Your task to perform on an android device: Open calendar and show me the third week of next month Image 0: 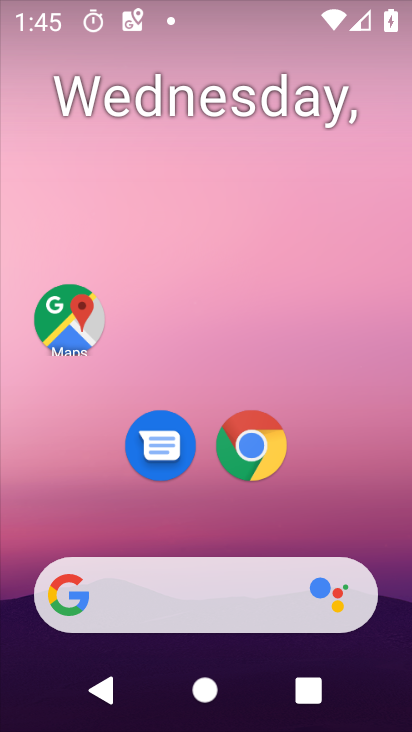
Step 0: press home button
Your task to perform on an android device: Open calendar and show me the third week of next month Image 1: 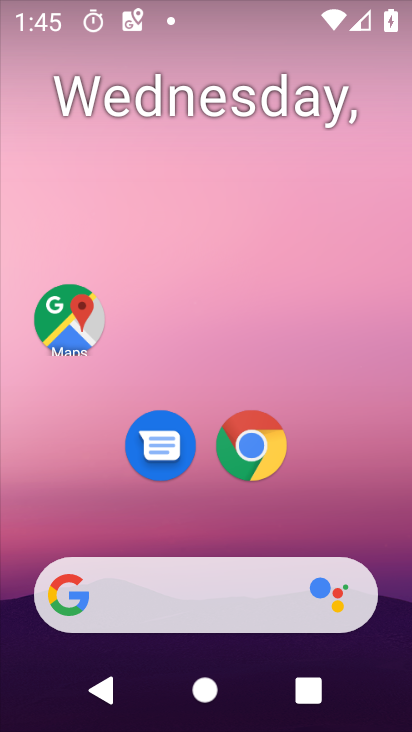
Step 1: drag from (381, 503) to (299, 65)
Your task to perform on an android device: Open calendar and show me the third week of next month Image 2: 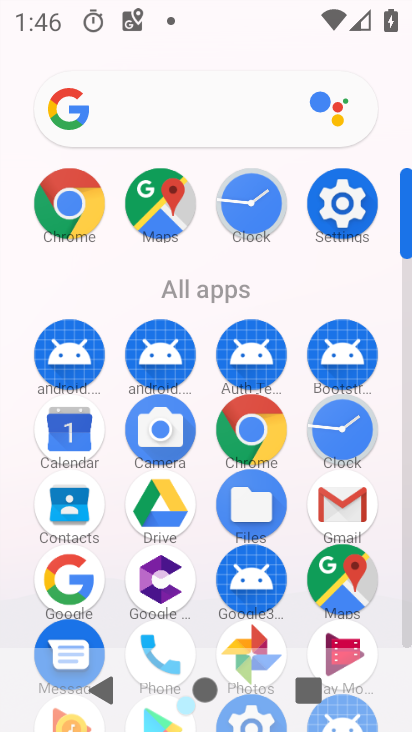
Step 2: click (67, 457)
Your task to perform on an android device: Open calendar and show me the third week of next month Image 3: 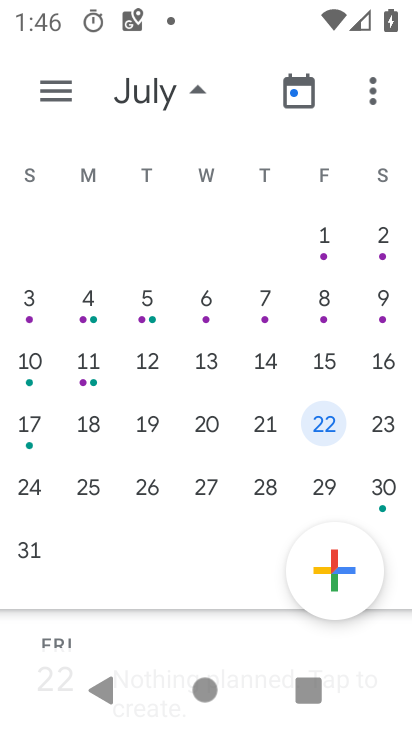
Step 3: click (313, 356)
Your task to perform on an android device: Open calendar and show me the third week of next month Image 4: 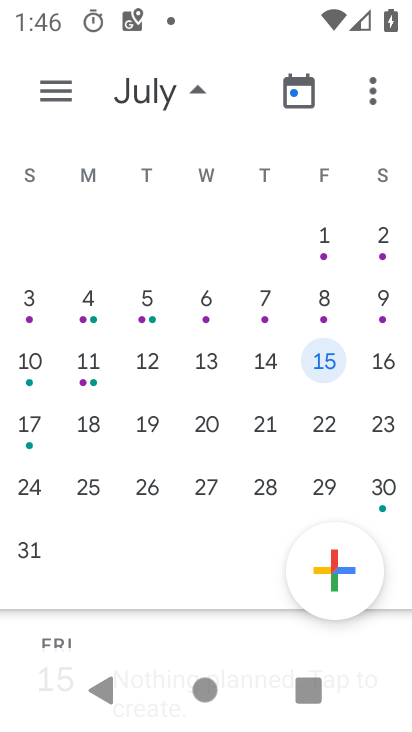
Step 4: task complete